Your task to perform on an android device: toggle javascript in the chrome app Image 0: 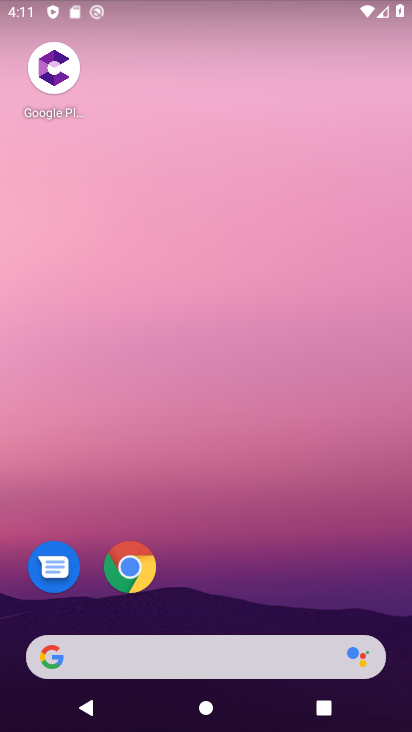
Step 0: click (132, 578)
Your task to perform on an android device: toggle javascript in the chrome app Image 1: 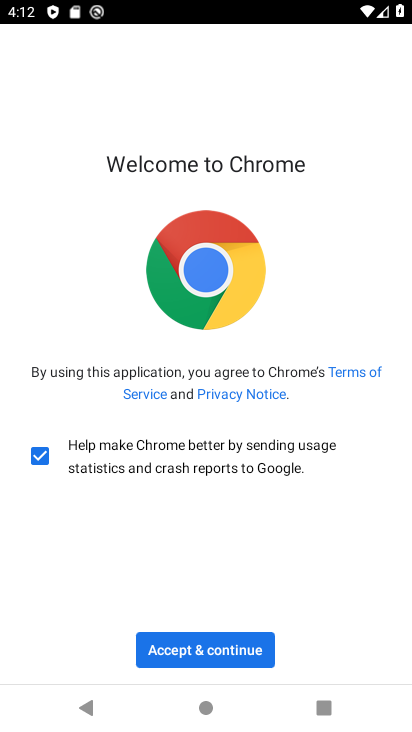
Step 1: click (175, 663)
Your task to perform on an android device: toggle javascript in the chrome app Image 2: 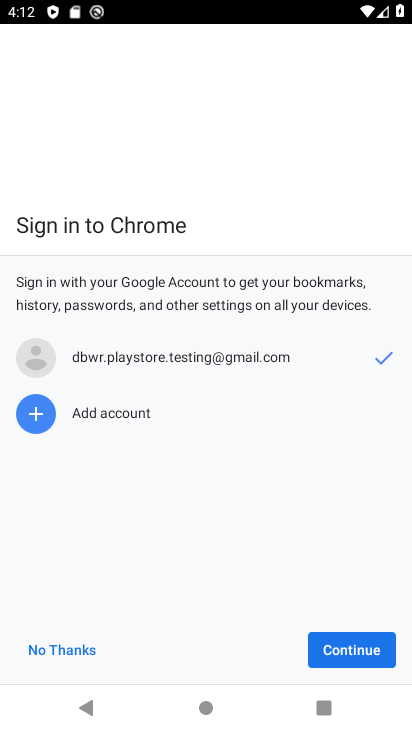
Step 2: click (369, 657)
Your task to perform on an android device: toggle javascript in the chrome app Image 3: 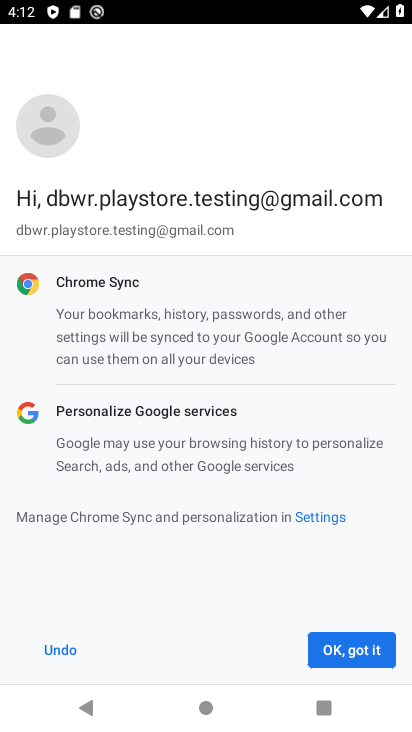
Step 3: click (369, 657)
Your task to perform on an android device: toggle javascript in the chrome app Image 4: 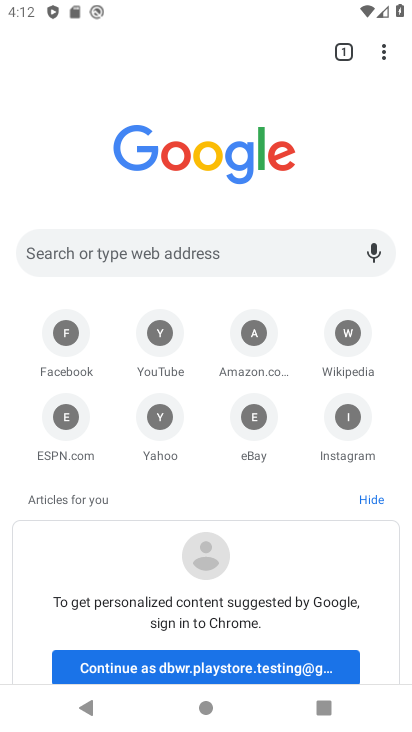
Step 4: click (382, 56)
Your task to perform on an android device: toggle javascript in the chrome app Image 5: 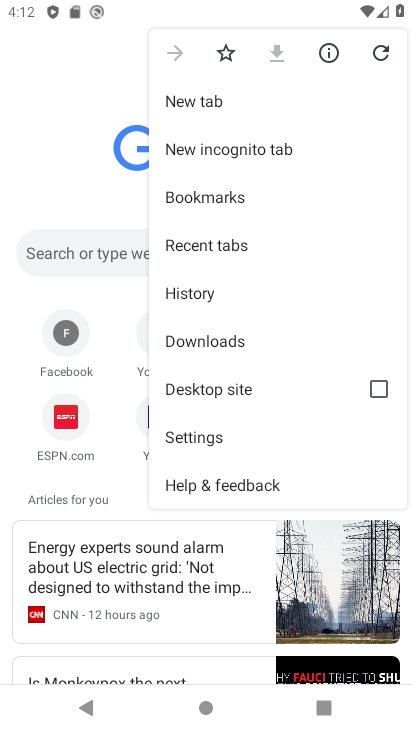
Step 5: click (224, 444)
Your task to perform on an android device: toggle javascript in the chrome app Image 6: 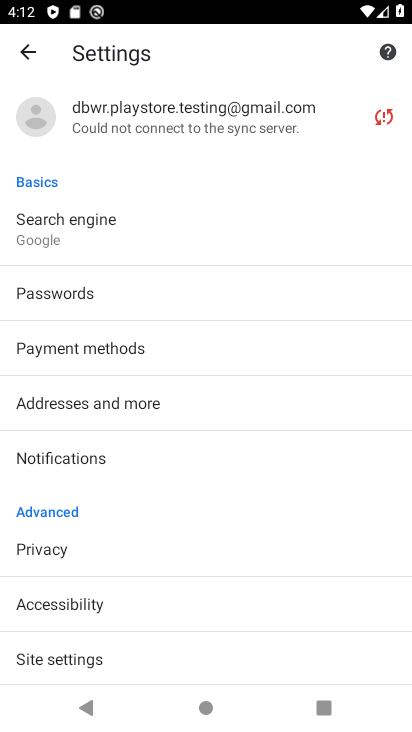
Step 6: drag from (175, 647) to (205, 338)
Your task to perform on an android device: toggle javascript in the chrome app Image 7: 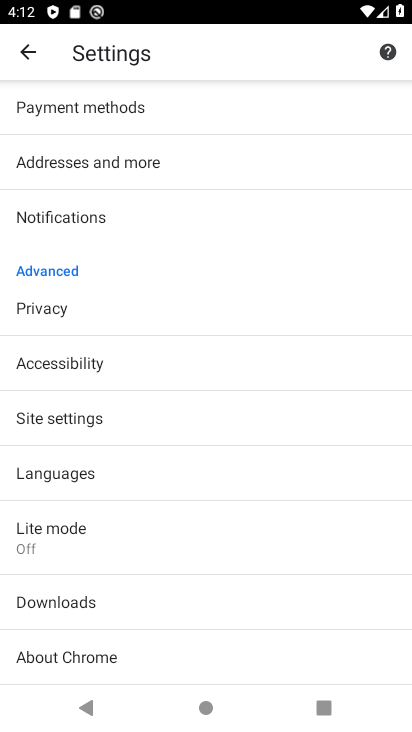
Step 7: click (93, 425)
Your task to perform on an android device: toggle javascript in the chrome app Image 8: 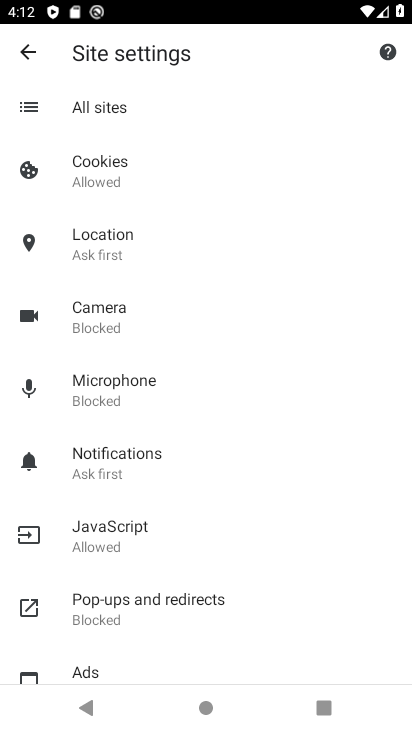
Step 8: click (144, 550)
Your task to perform on an android device: toggle javascript in the chrome app Image 9: 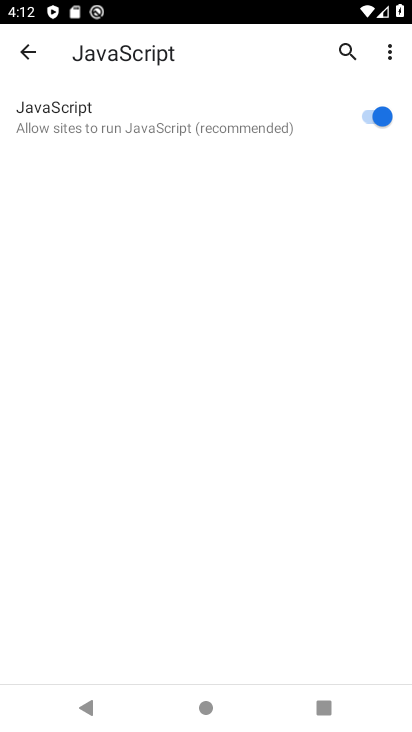
Step 9: click (382, 118)
Your task to perform on an android device: toggle javascript in the chrome app Image 10: 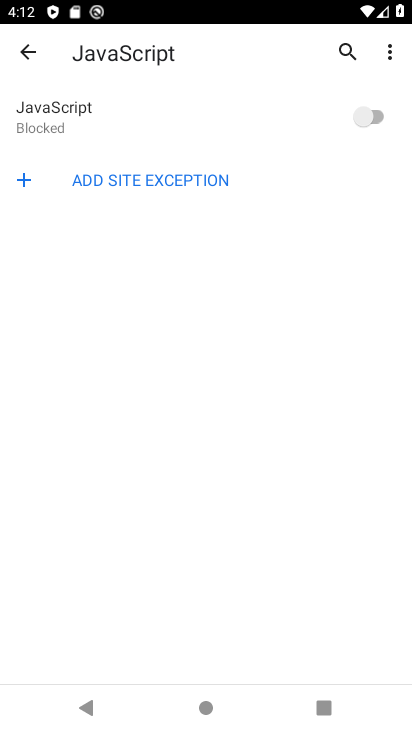
Step 10: task complete